Your task to perform on an android device: When is my next appointment? Image 0: 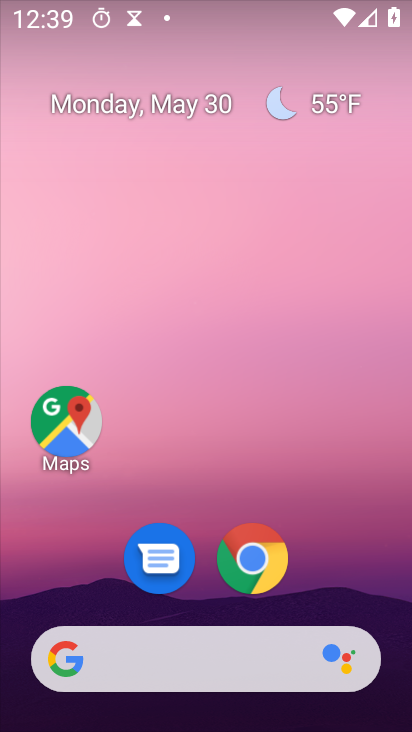
Step 0: drag from (346, 492) to (335, 384)
Your task to perform on an android device: When is my next appointment? Image 1: 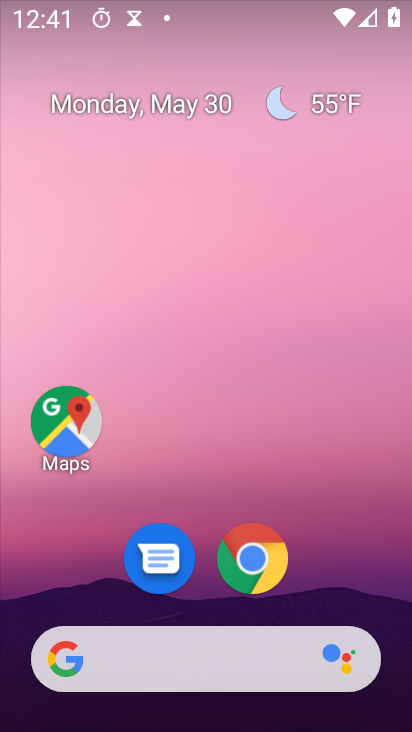
Step 1: drag from (338, 521) to (370, 351)
Your task to perform on an android device: When is my next appointment? Image 2: 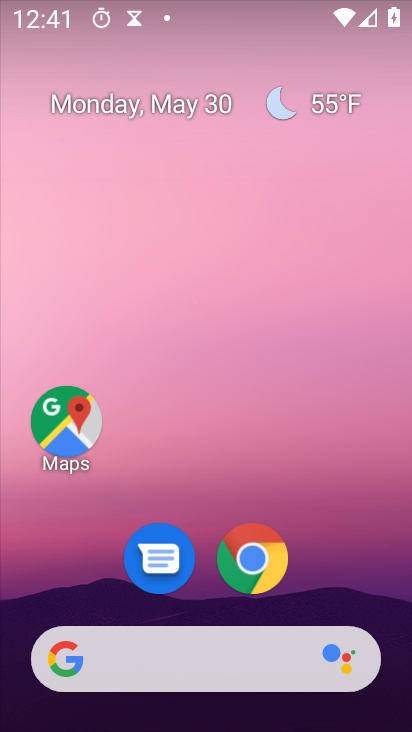
Step 2: drag from (334, 602) to (401, 164)
Your task to perform on an android device: When is my next appointment? Image 3: 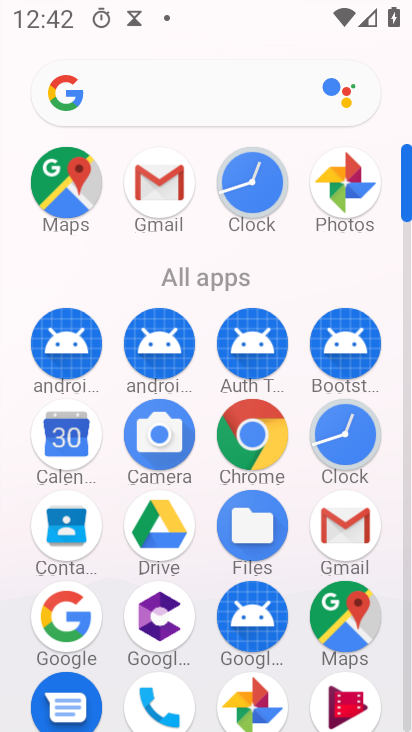
Step 3: click (69, 433)
Your task to perform on an android device: When is my next appointment? Image 4: 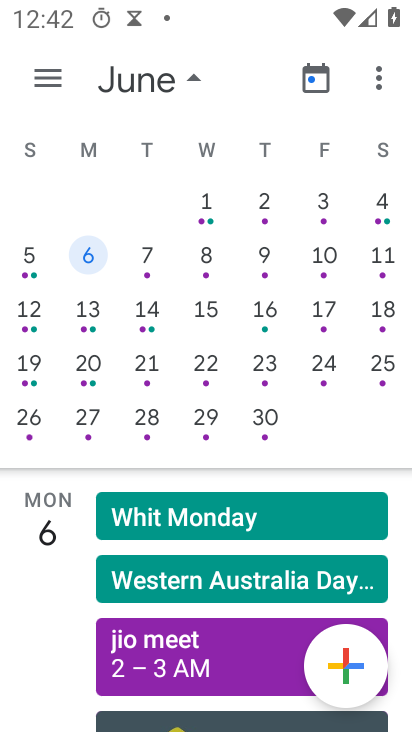
Step 4: click (154, 250)
Your task to perform on an android device: When is my next appointment? Image 5: 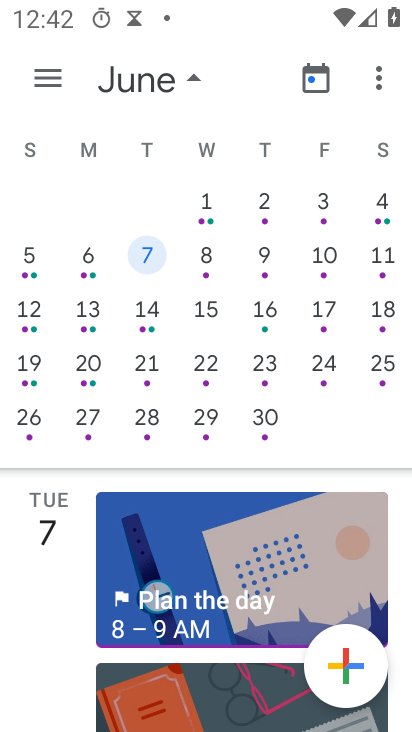
Step 5: task complete